Your task to perform on an android device: Go to Yahoo.com Image 0: 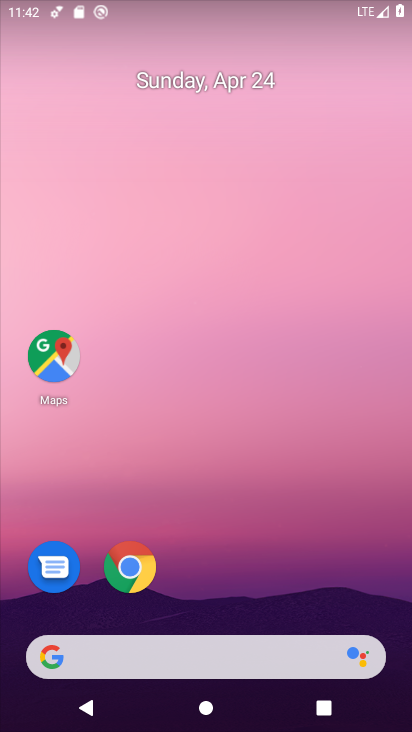
Step 0: drag from (207, 556) to (232, 53)
Your task to perform on an android device: Go to Yahoo.com Image 1: 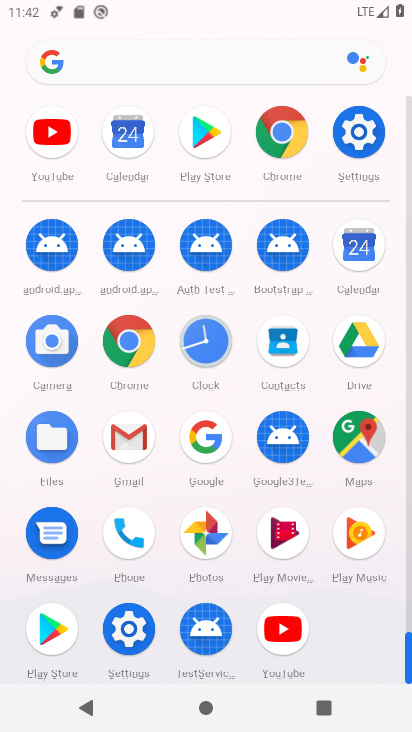
Step 1: click (124, 335)
Your task to perform on an android device: Go to Yahoo.com Image 2: 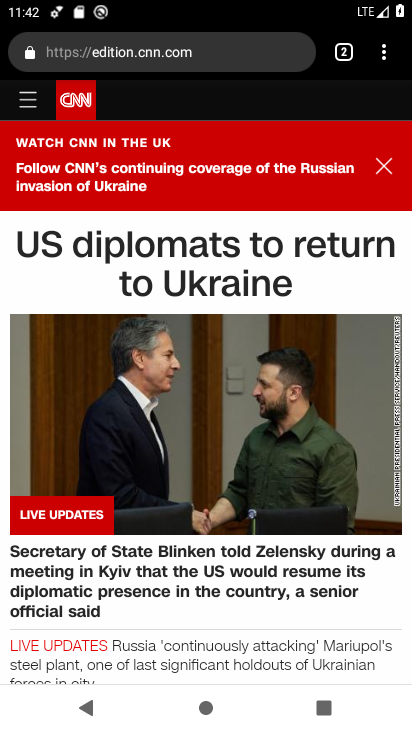
Step 2: click (220, 52)
Your task to perform on an android device: Go to Yahoo.com Image 3: 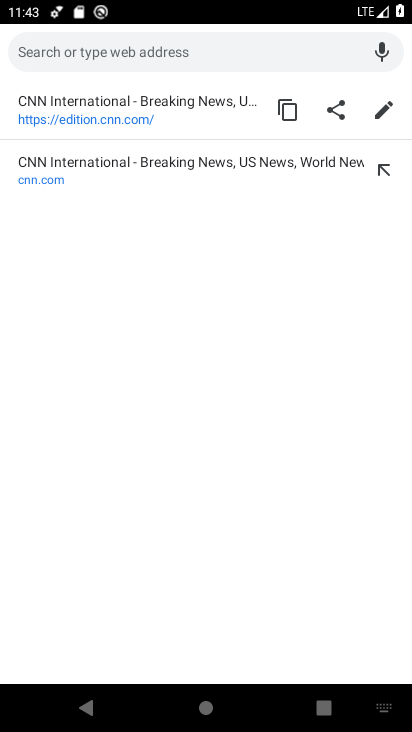
Step 3: type "yahoo.com"
Your task to perform on an android device: Go to Yahoo.com Image 4: 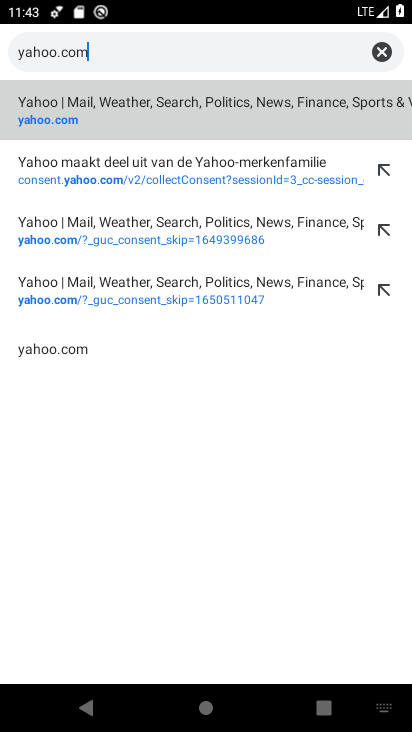
Step 4: click (211, 103)
Your task to perform on an android device: Go to Yahoo.com Image 5: 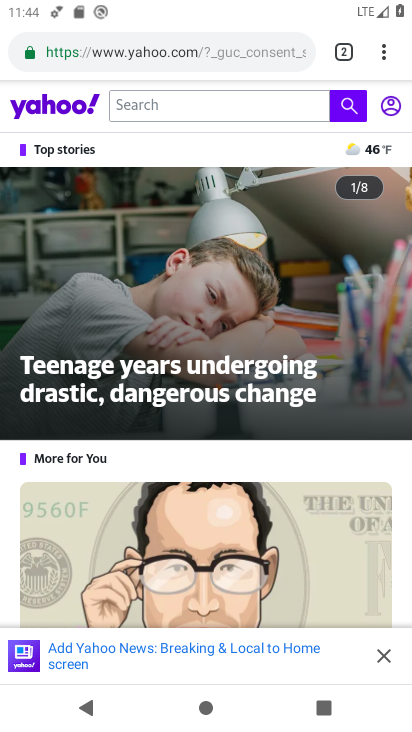
Step 5: task complete